Your task to perform on an android device: Go to Wikipedia Image 0: 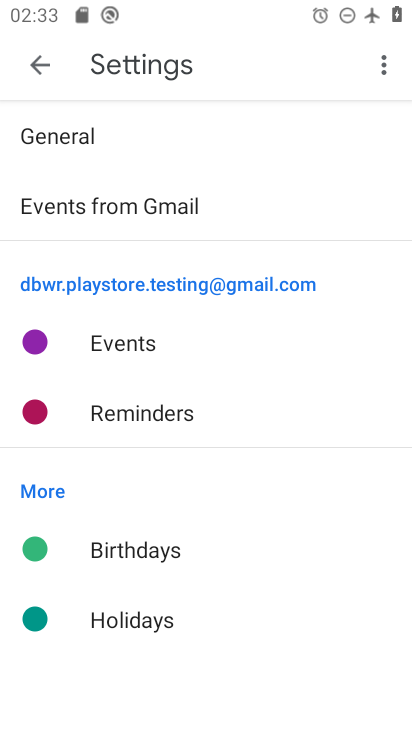
Step 0: press home button
Your task to perform on an android device: Go to Wikipedia Image 1: 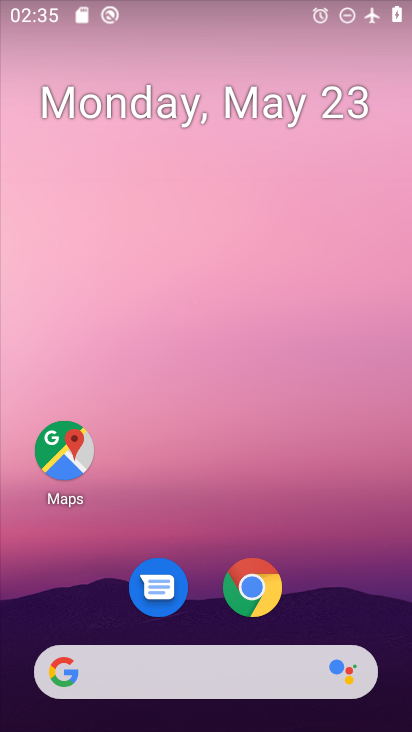
Step 1: click (275, 604)
Your task to perform on an android device: Go to Wikipedia Image 2: 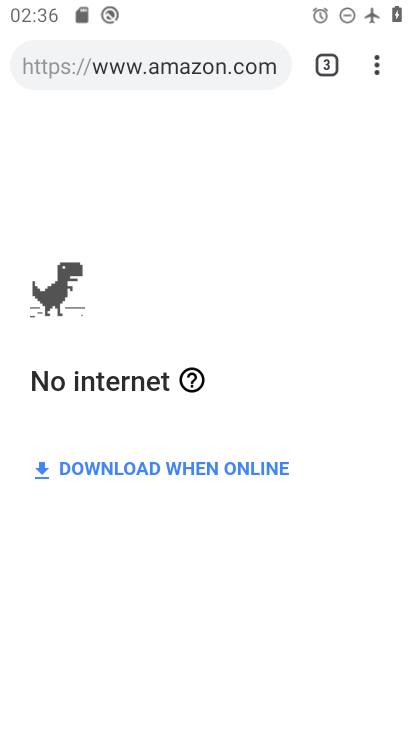
Step 2: task complete